Your task to perform on an android device: Open Youtube and go to the subscriptions tab Image 0: 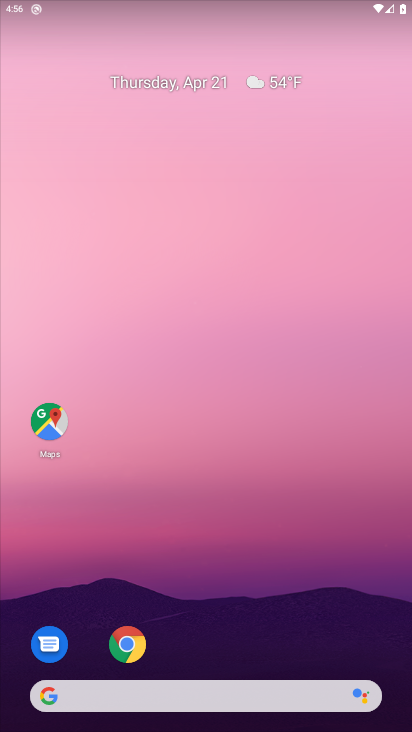
Step 0: drag from (215, 652) to (287, 148)
Your task to perform on an android device: Open Youtube and go to the subscriptions tab Image 1: 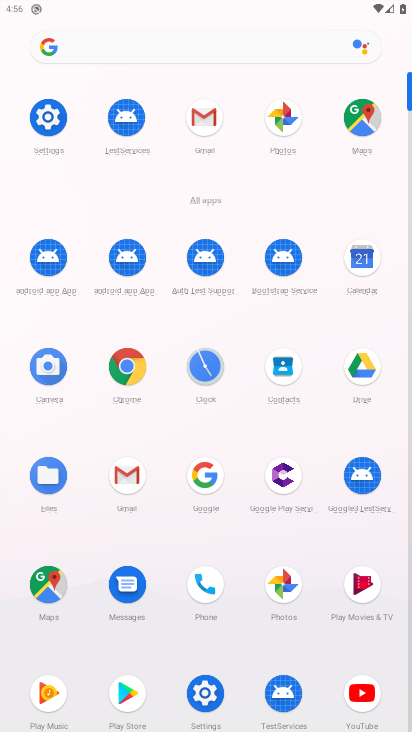
Step 1: click (369, 687)
Your task to perform on an android device: Open Youtube and go to the subscriptions tab Image 2: 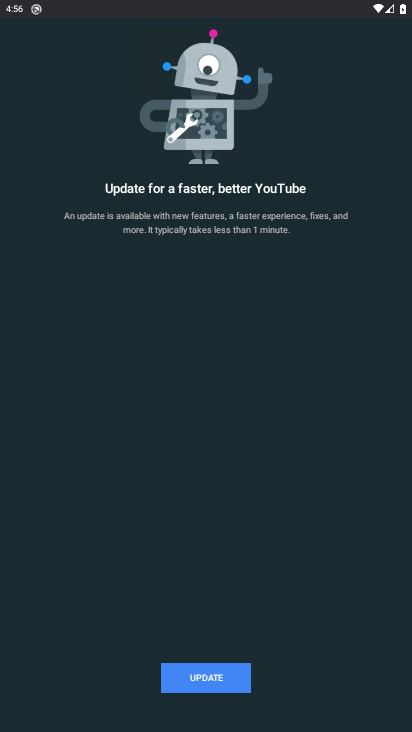
Step 2: click (209, 687)
Your task to perform on an android device: Open Youtube and go to the subscriptions tab Image 3: 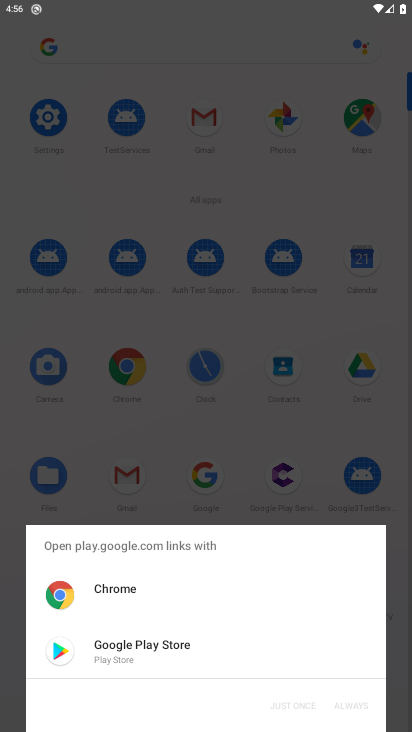
Step 3: click (134, 642)
Your task to perform on an android device: Open Youtube and go to the subscriptions tab Image 4: 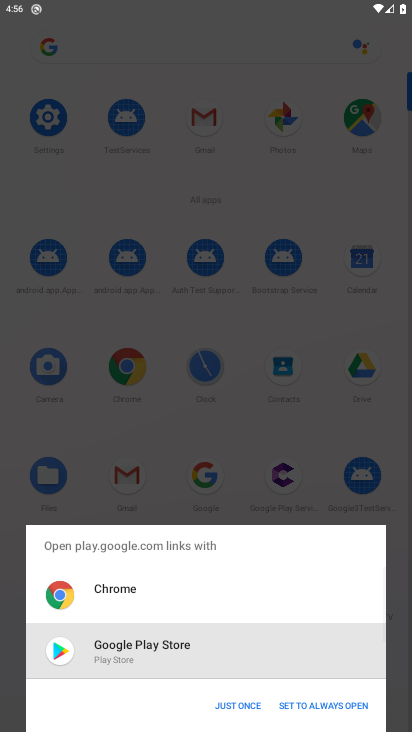
Step 4: click (277, 706)
Your task to perform on an android device: Open Youtube and go to the subscriptions tab Image 5: 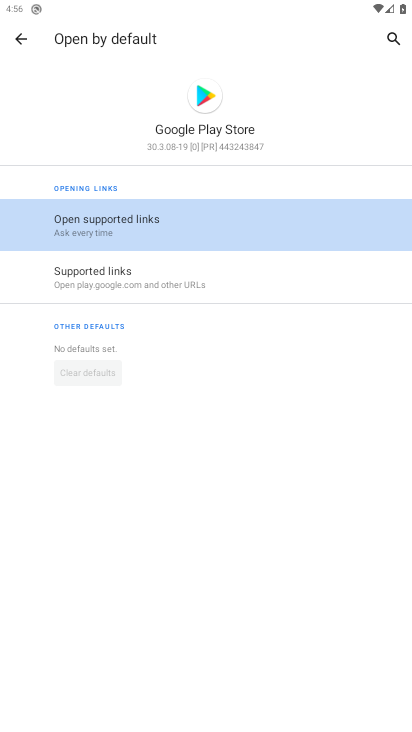
Step 5: click (96, 219)
Your task to perform on an android device: Open Youtube and go to the subscriptions tab Image 6: 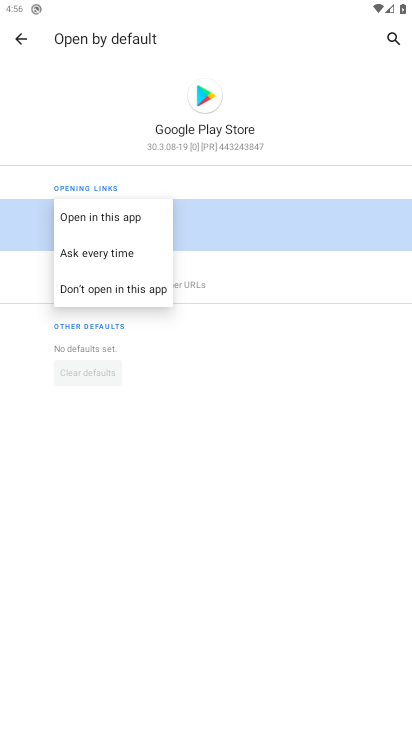
Step 6: click (111, 289)
Your task to perform on an android device: Open Youtube and go to the subscriptions tab Image 7: 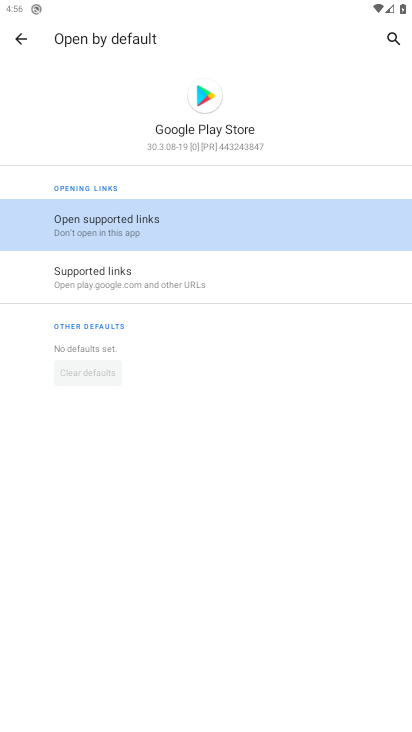
Step 7: click (103, 220)
Your task to perform on an android device: Open Youtube and go to the subscriptions tab Image 8: 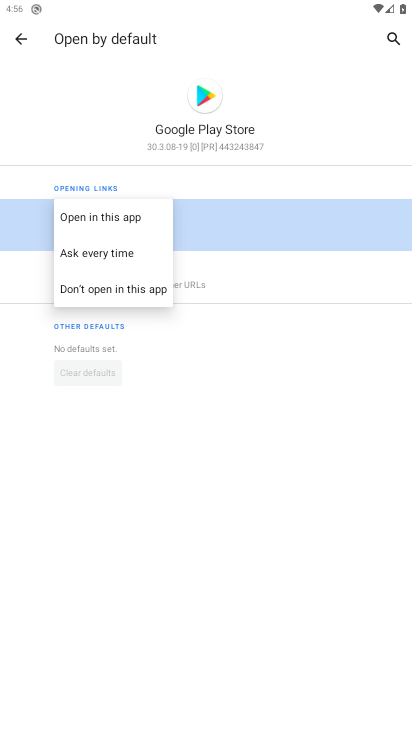
Step 8: click (111, 211)
Your task to perform on an android device: Open Youtube and go to the subscriptions tab Image 9: 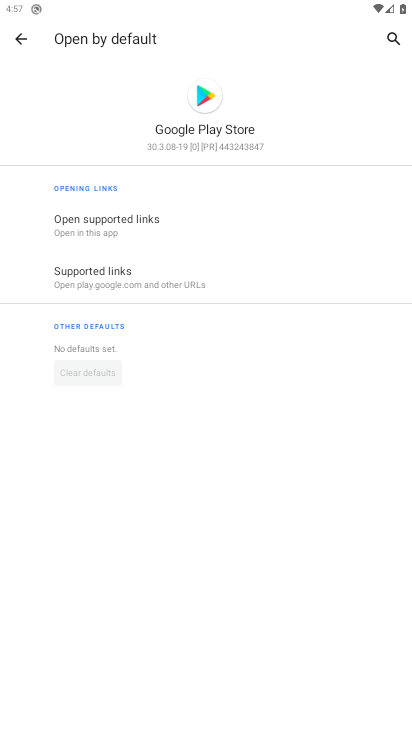
Step 9: task complete